Your task to perform on an android device: turn on wifi Image 0: 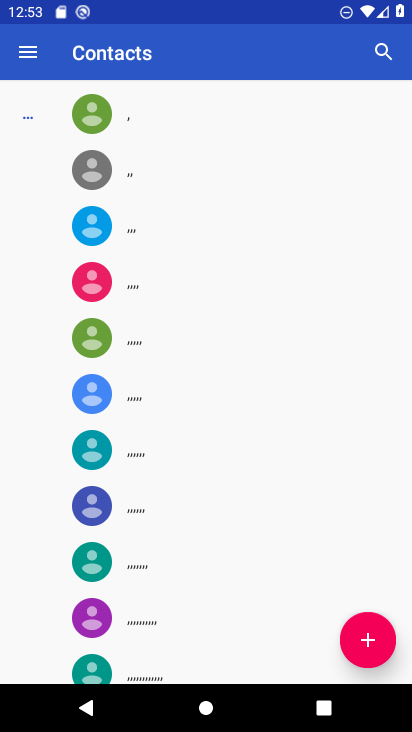
Step 0: press home button
Your task to perform on an android device: turn on wifi Image 1: 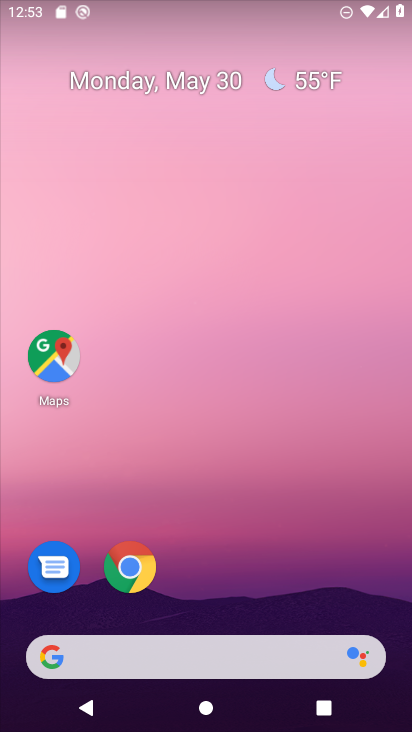
Step 1: task complete